Your task to perform on an android device: toggle notifications settings in the gmail app Image 0: 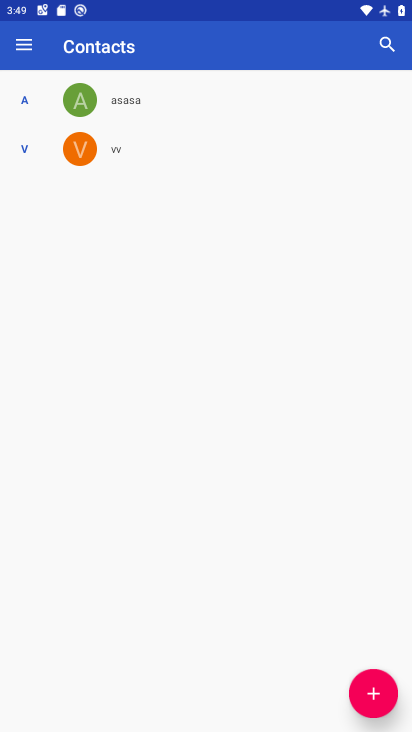
Step 0: press home button
Your task to perform on an android device: toggle notifications settings in the gmail app Image 1: 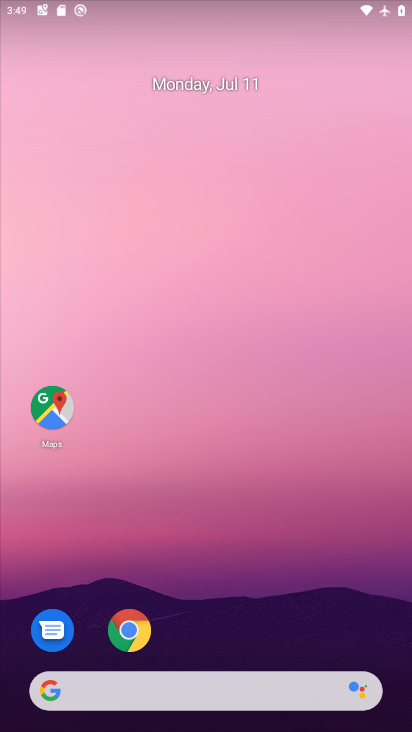
Step 1: drag from (280, 638) to (282, 143)
Your task to perform on an android device: toggle notifications settings in the gmail app Image 2: 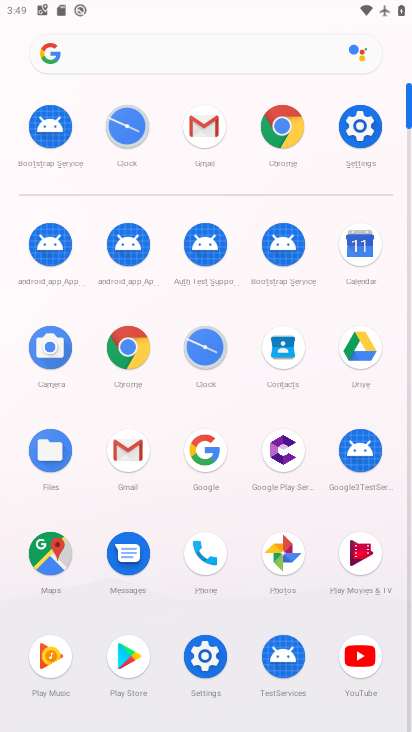
Step 2: click (211, 149)
Your task to perform on an android device: toggle notifications settings in the gmail app Image 3: 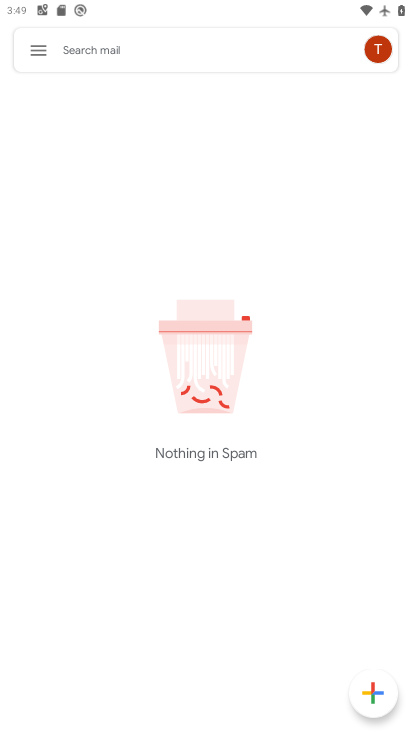
Step 3: click (26, 57)
Your task to perform on an android device: toggle notifications settings in the gmail app Image 4: 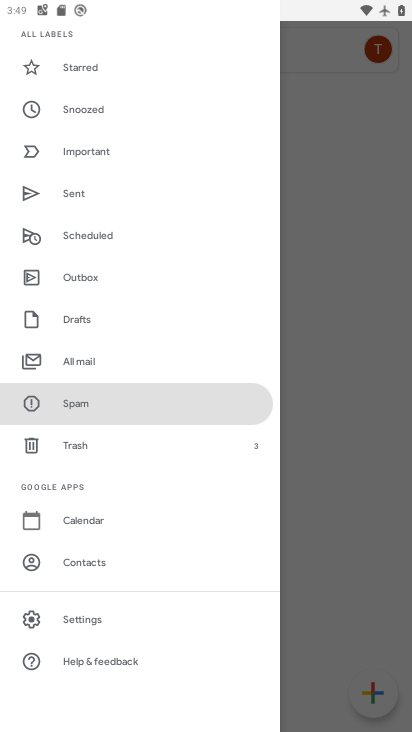
Step 4: click (124, 618)
Your task to perform on an android device: toggle notifications settings in the gmail app Image 5: 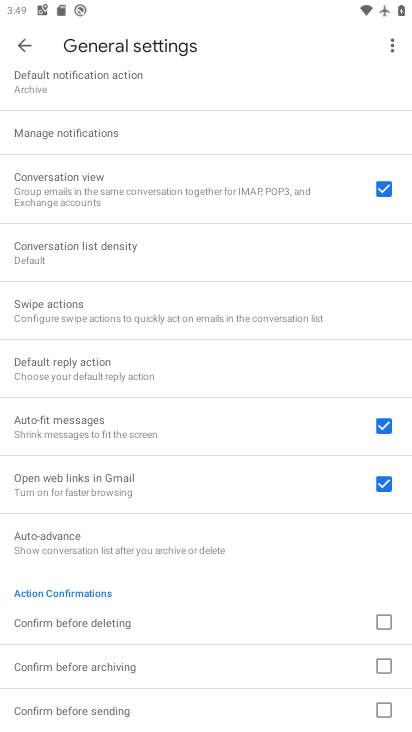
Step 5: task complete